Your task to perform on an android device: turn off javascript in the chrome app Image 0: 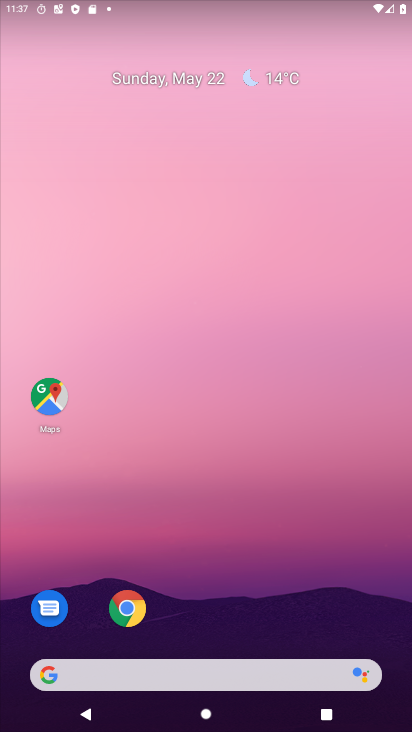
Step 0: click (128, 606)
Your task to perform on an android device: turn off javascript in the chrome app Image 1: 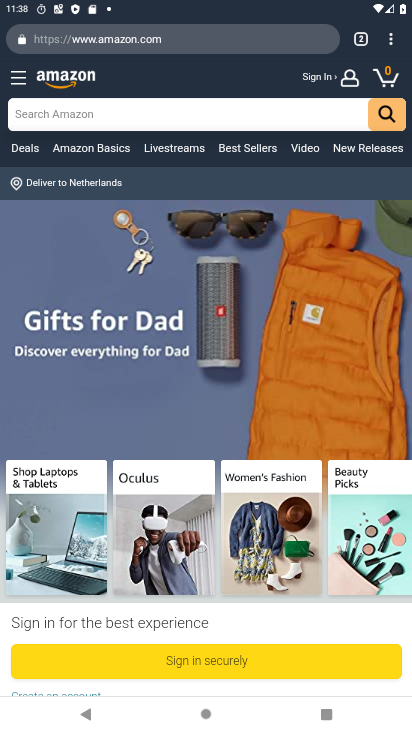
Step 1: click (393, 43)
Your task to perform on an android device: turn off javascript in the chrome app Image 2: 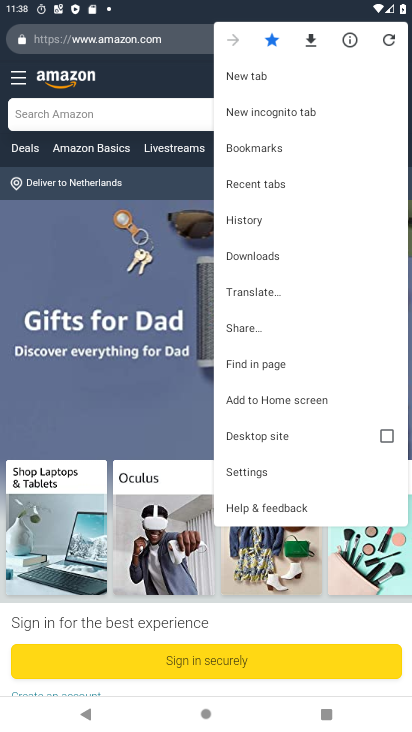
Step 2: click (244, 469)
Your task to perform on an android device: turn off javascript in the chrome app Image 3: 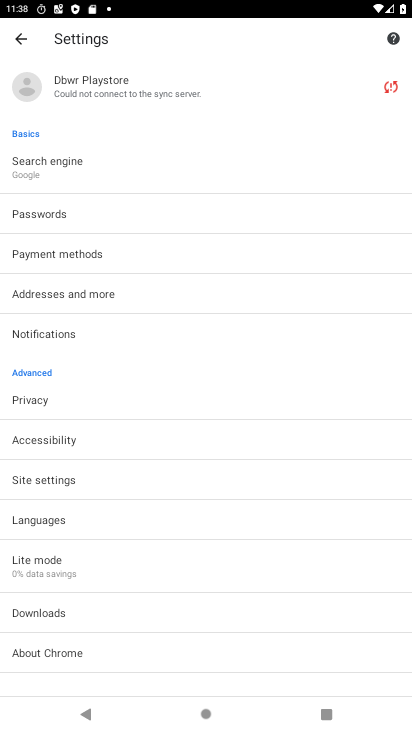
Step 3: click (44, 478)
Your task to perform on an android device: turn off javascript in the chrome app Image 4: 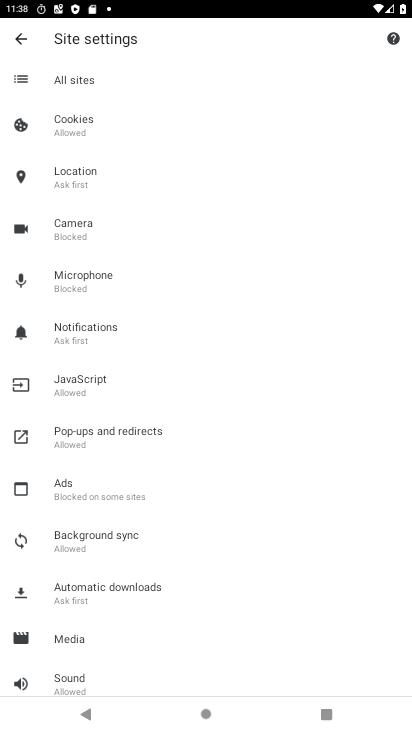
Step 4: click (92, 377)
Your task to perform on an android device: turn off javascript in the chrome app Image 5: 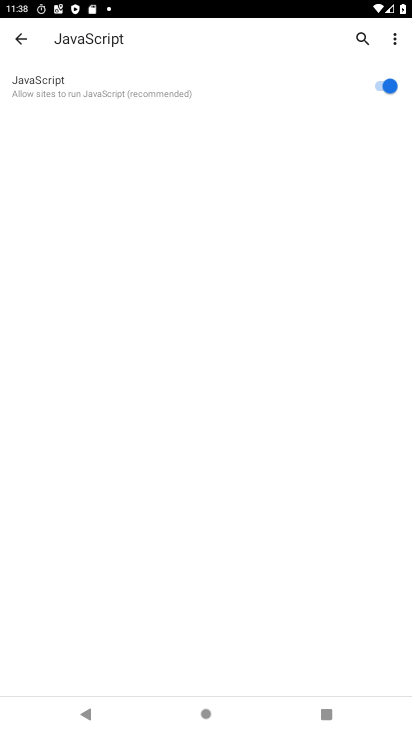
Step 5: click (380, 85)
Your task to perform on an android device: turn off javascript in the chrome app Image 6: 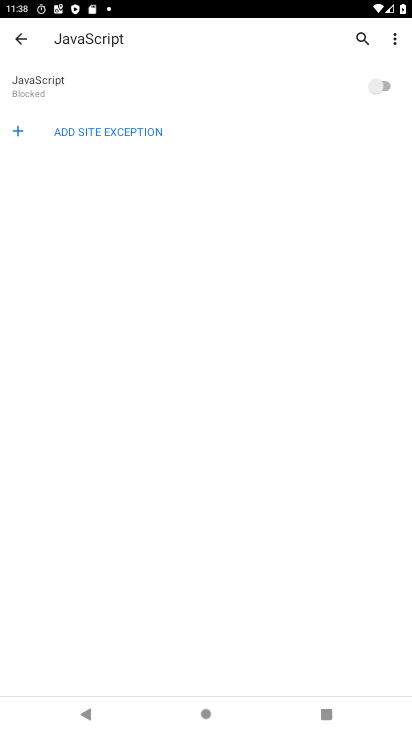
Step 6: task complete